Your task to perform on an android device: change the clock display to digital Image 0: 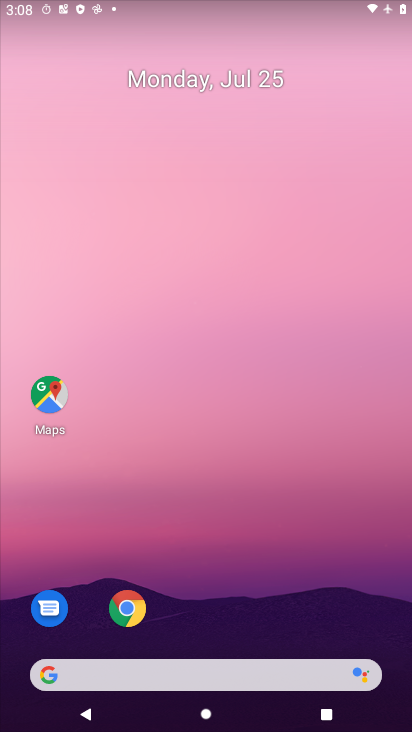
Step 0: drag from (210, 656) to (228, 215)
Your task to perform on an android device: change the clock display to digital Image 1: 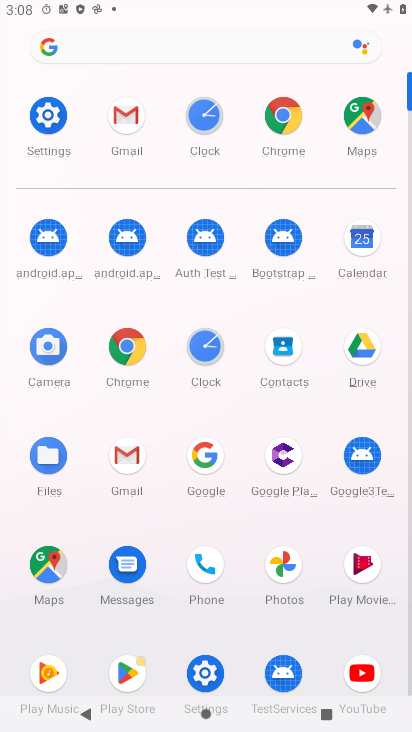
Step 1: click (232, 347)
Your task to perform on an android device: change the clock display to digital Image 2: 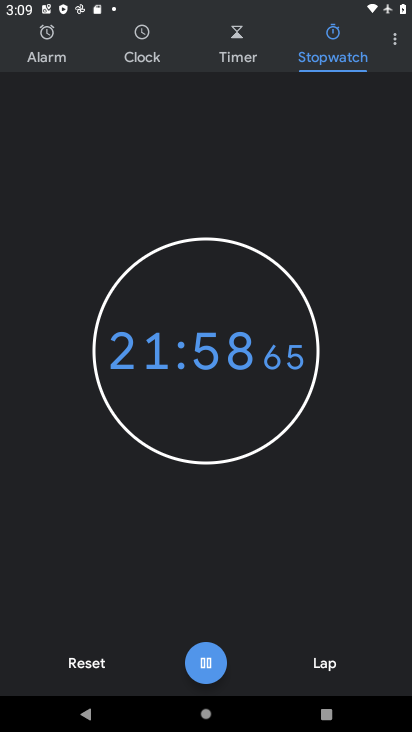
Step 2: click (396, 43)
Your task to perform on an android device: change the clock display to digital Image 3: 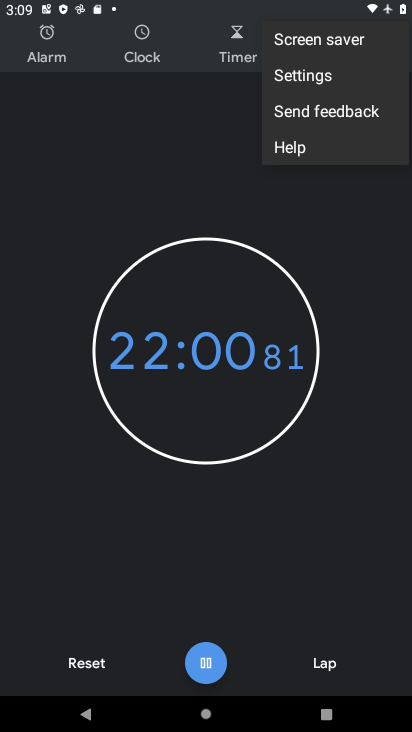
Step 3: click (318, 75)
Your task to perform on an android device: change the clock display to digital Image 4: 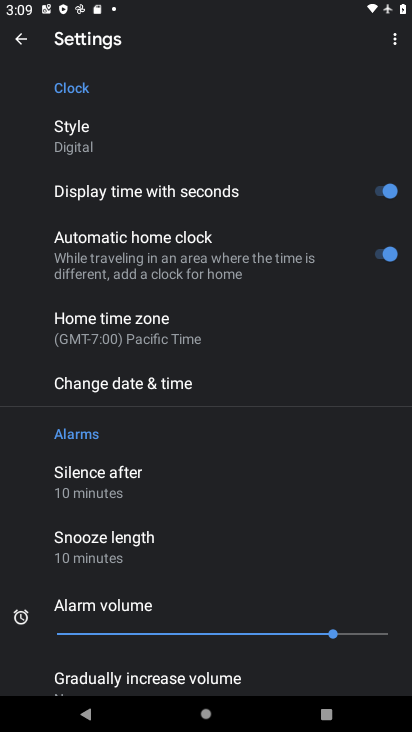
Step 4: click (120, 137)
Your task to perform on an android device: change the clock display to digital Image 5: 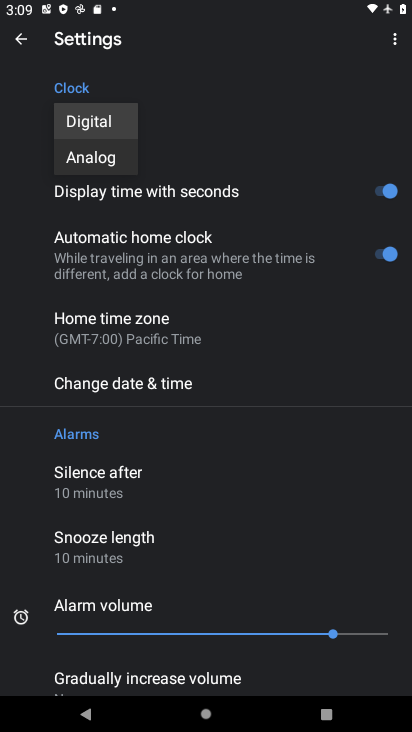
Step 5: task complete